Your task to perform on an android device: Check out the new nike air max 2020. Image 0: 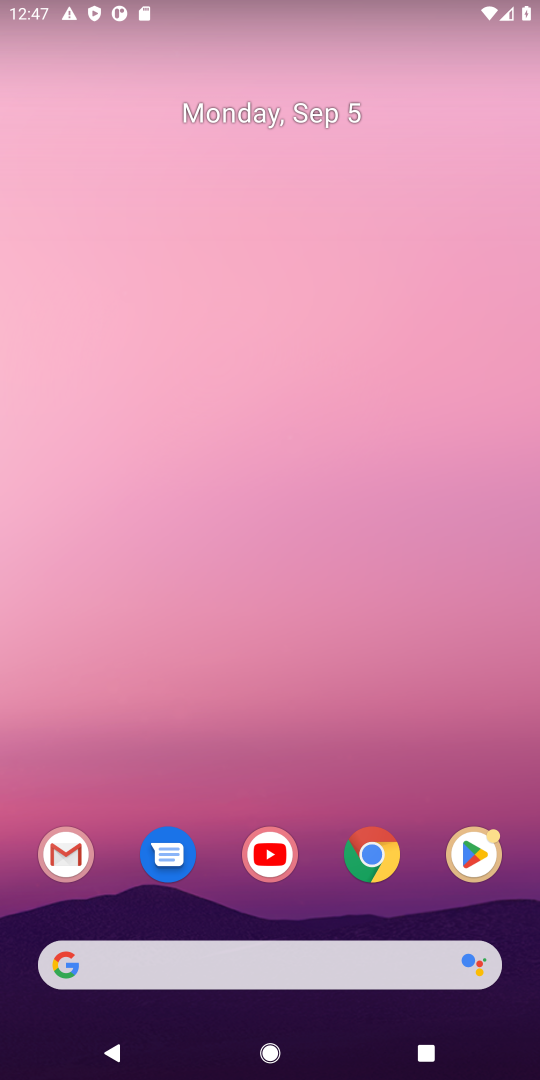
Step 0: press home button
Your task to perform on an android device: Check out the new nike air max 2020. Image 1: 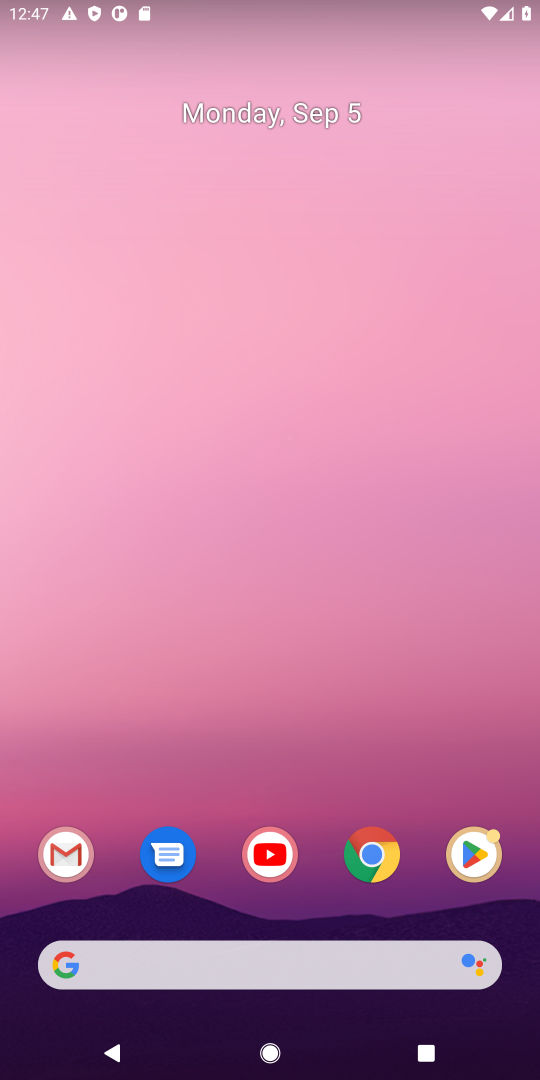
Step 1: click (283, 946)
Your task to perform on an android device: Check out the new nike air max 2020. Image 2: 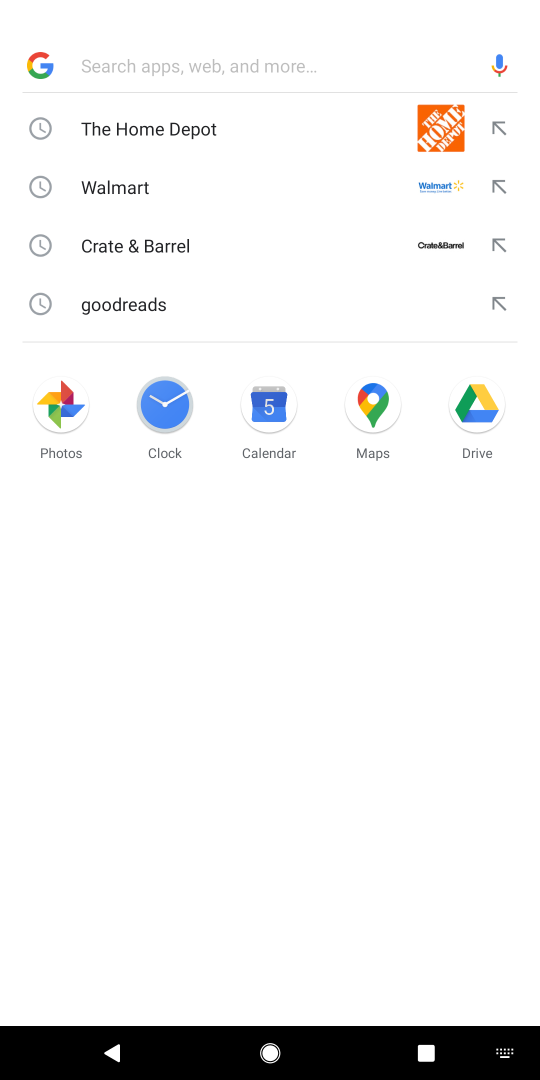
Step 2: type "new nike air max 2020"
Your task to perform on an android device: Check out the new nike air max 2020. Image 3: 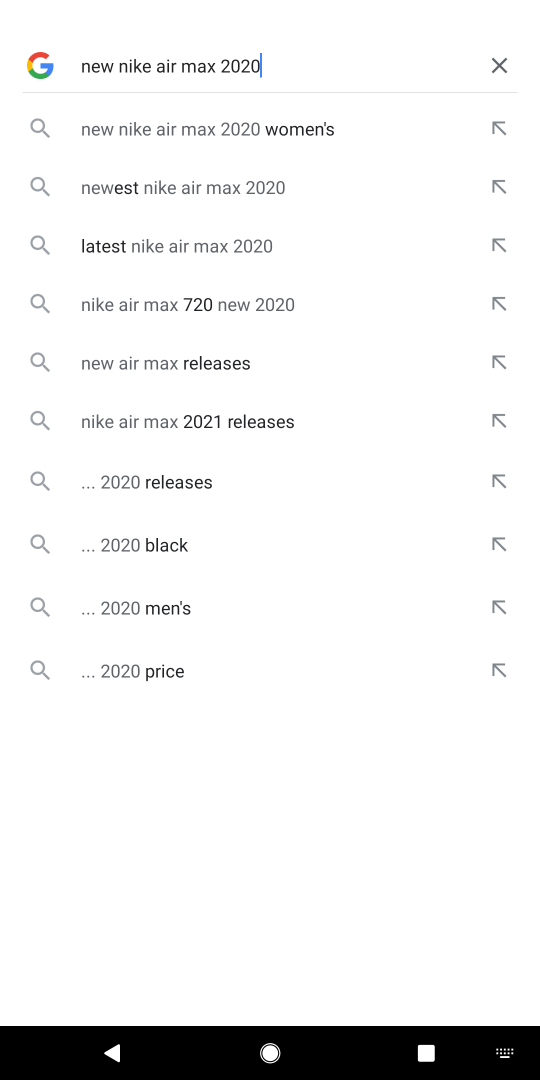
Step 3: press enter
Your task to perform on an android device: Check out the new nike air max 2020. Image 4: 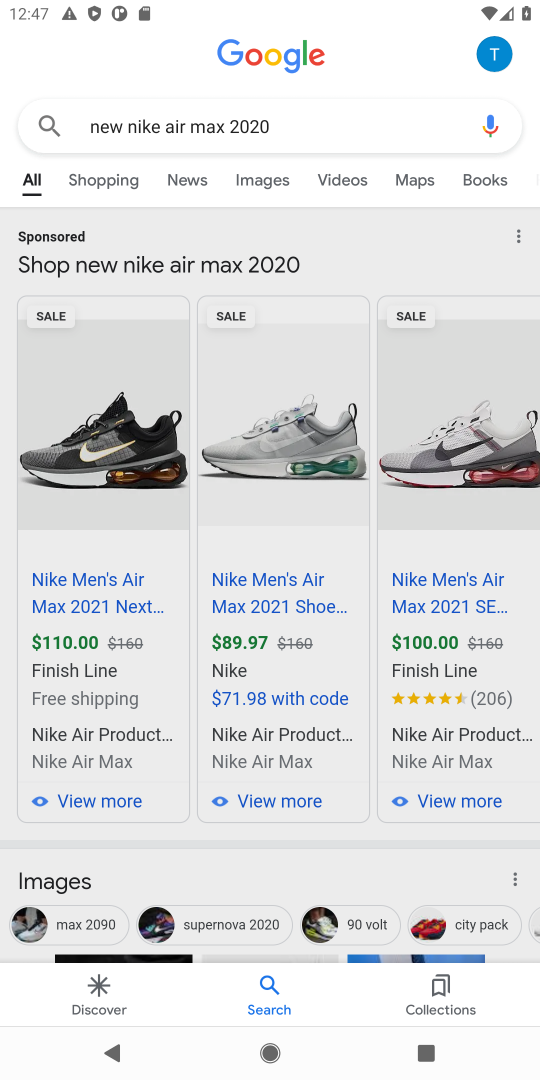
Step 4: task complete